Your task to perform on an android device: delete browsing data in the chrome app Image 0: 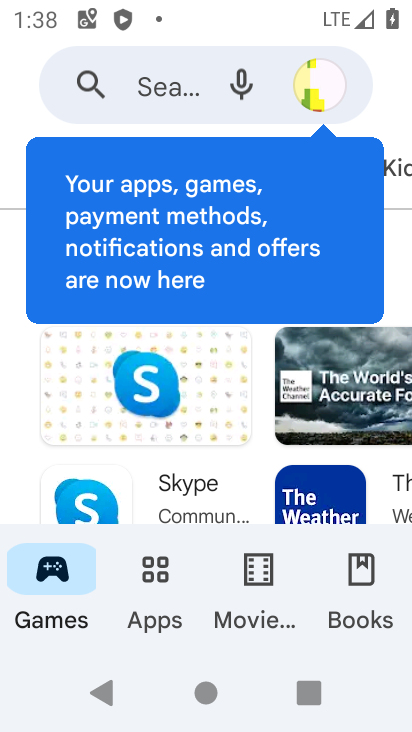
Step 0: press home button
Your task to perform on an android device: delete browsing data in the chrome app Image 1: 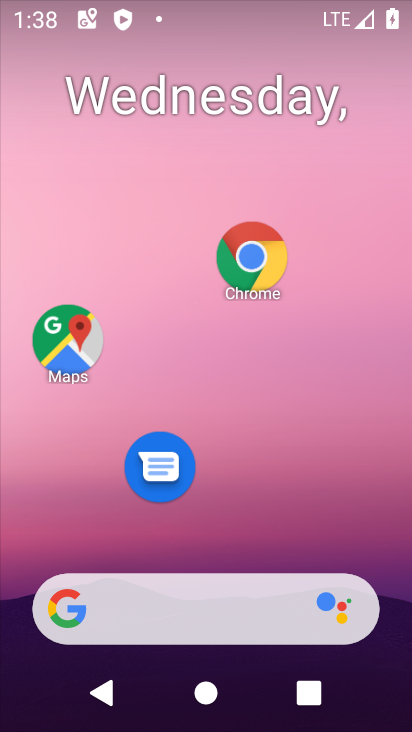
Step 1: click (264, 253)
Your task to perform on an android device: delete browsing data in the chrome app Image 2: 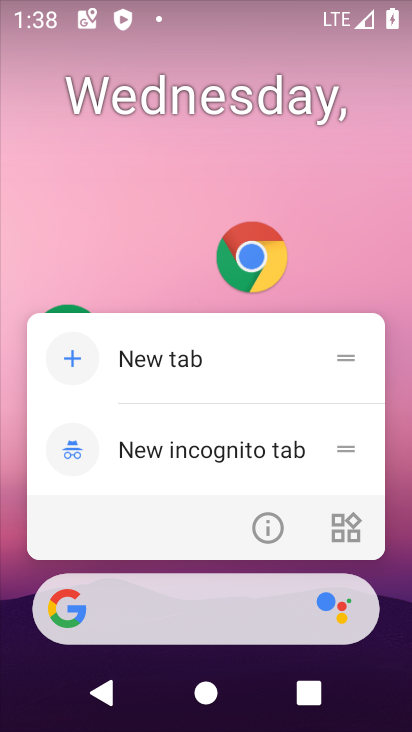
Step 2: click (370, 275)
Your task to perform on an android device: delete browsing data in the chrome app Image 3: 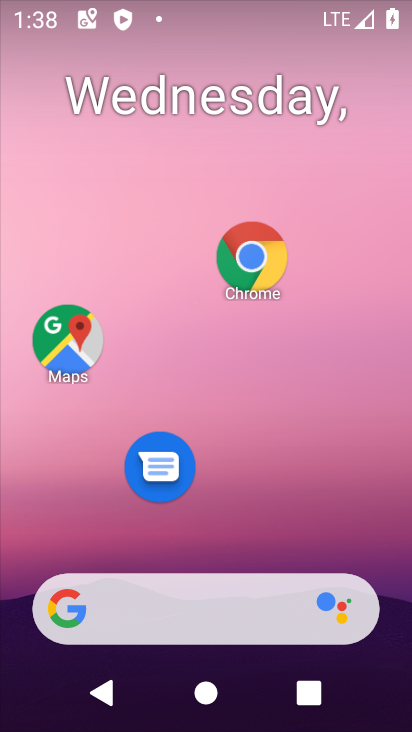
Step 3: drag from (314, 536) to (333, 18)
Your task to perform on an android device: delete browsing data in the chrome app Image 4: 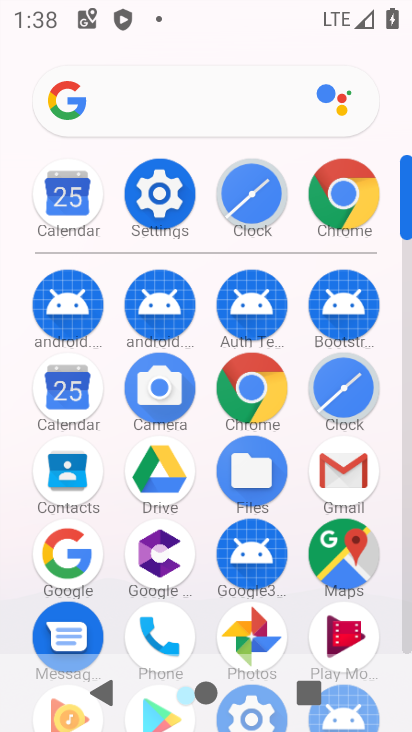
Step 4: click (250, 383)
Your task to perform on an android device: delete browsing data in the chrome app Image 5: 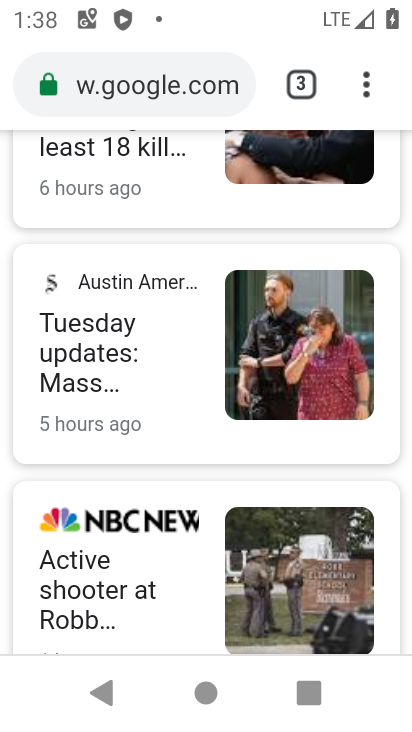
Step 5: drag from (365, 79) to (113, 494)
Your task to perform on an android device: delete browsing data in the chrome app Image 6: 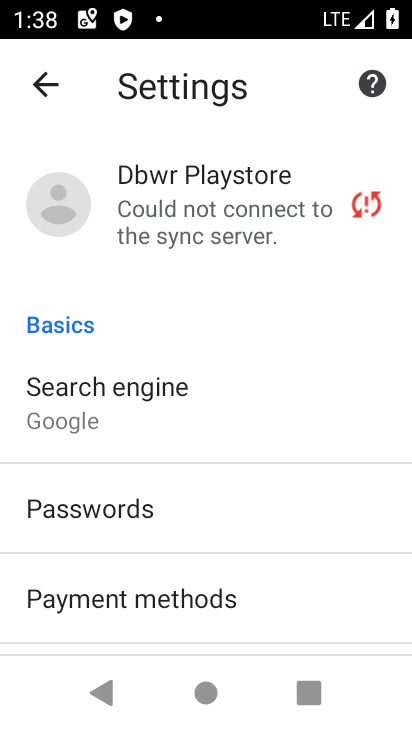
Step 6: drag from (272, 597) to (242, 303)
Your task to perform on an android device: delete browsing data in the chrome app Image 7: 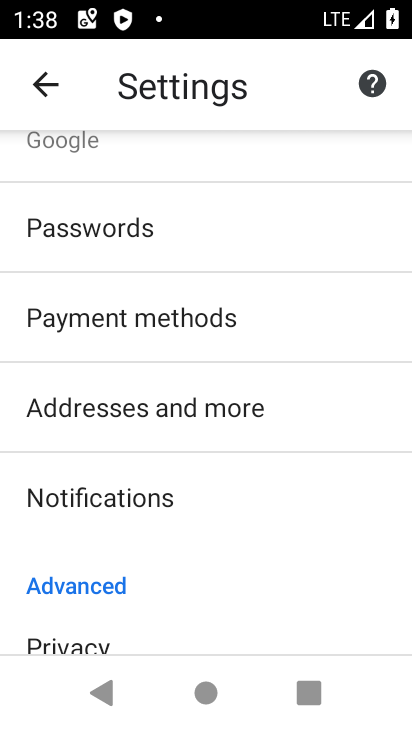
Step 7: drag from (247, 575) to (252, 293)
Your task to perform on an android device: delete browsing data in the chrome app Image 8: 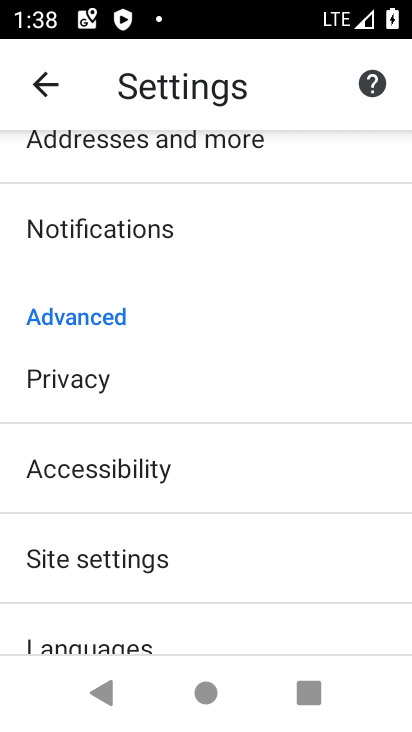
Step 8: click (93, 384)
Your task to perform on an android device: delete browsing data in the chrome app Image 9: 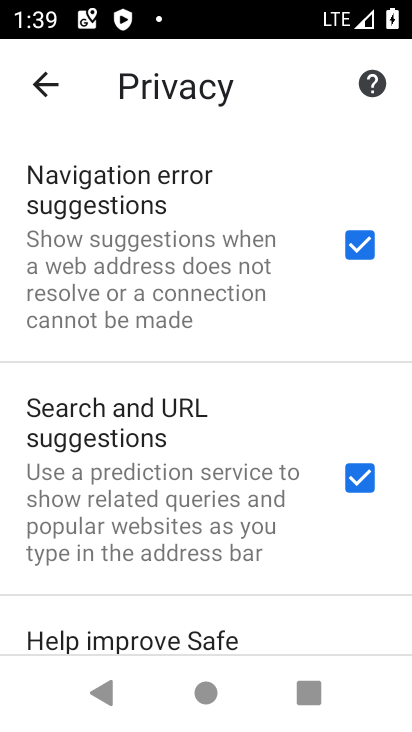
Step 9: drag from (327, 620) to (289, 157)
Your task to perform on an android device: delete browsing data in the chrome app Image 10: 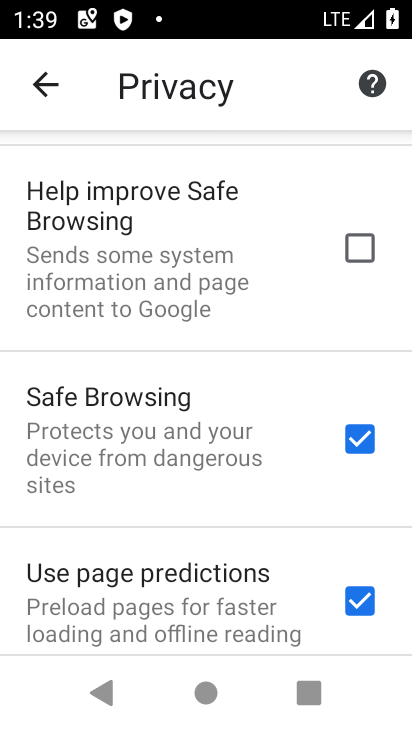
Step 10: drag from (238, 614) to (283, 210)
Your task to perform on an android device: delete browsing data in the chrome app Image 11: 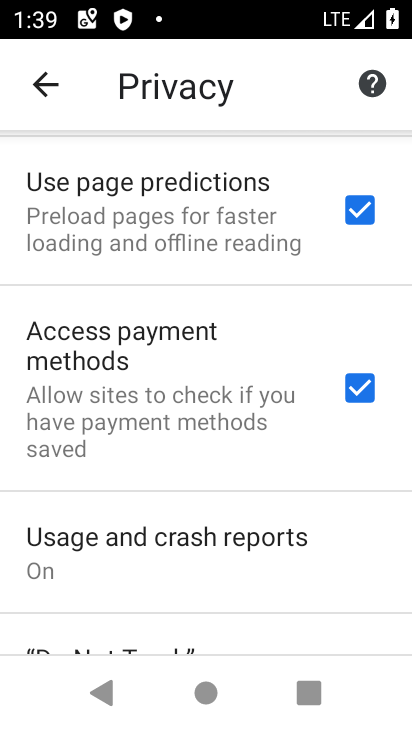
Step 11: drag from (238, 637) to (277, 218)
Your task to perform on an android device: delete browsing data in the chrome app Image 12: 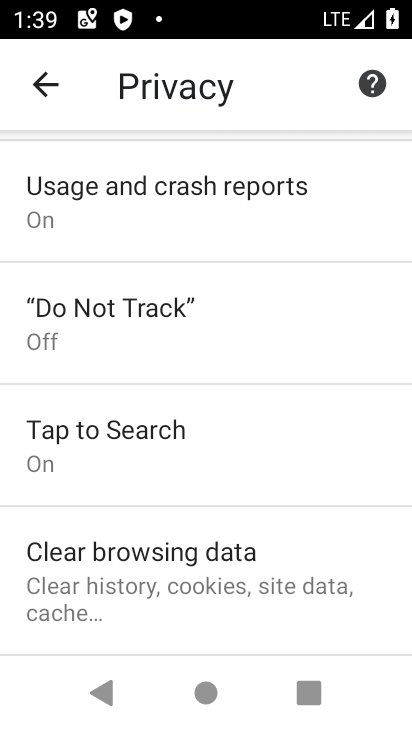
Step 12: click (194, 563)
Your task to perform on an android device: delete browsing data in the chrome app Image 13: 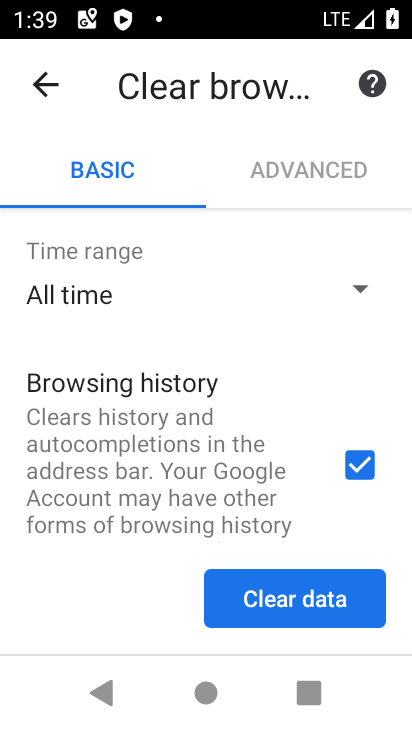
Step 13: click (254, 588)
Your task to perform on an android device: delete browsing data in the chrome app Image 14: 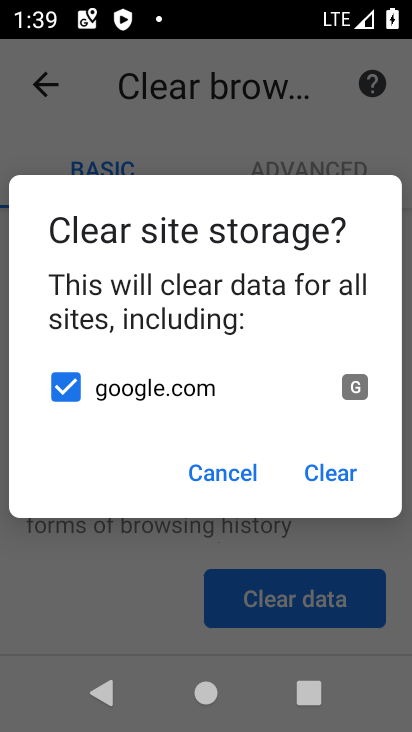
Step 14: click (345, 473)
Your task to perform on an android device: delete browsing data in the chrome app Image 15: 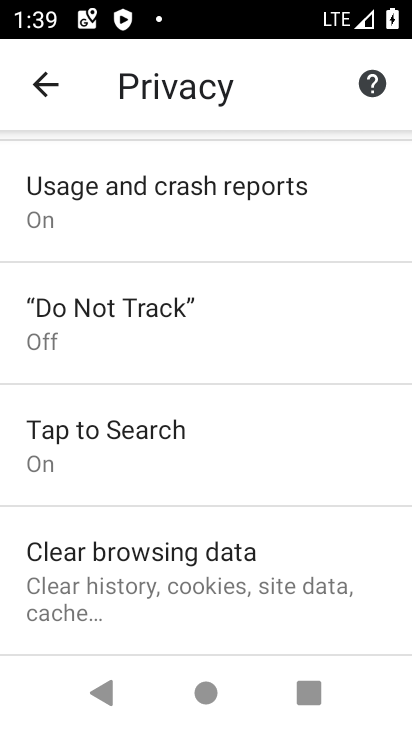
Step 15: click (124, 605)
Your task to perform on an android device: delete browsing data in the chrome app Image 16: 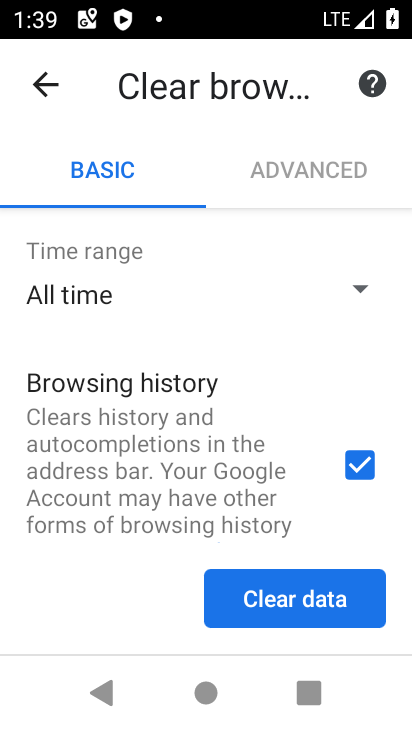
Step 16: click (306, 604)
Your task to perform on an android device: delete browsing data in the chrome app Image 17: 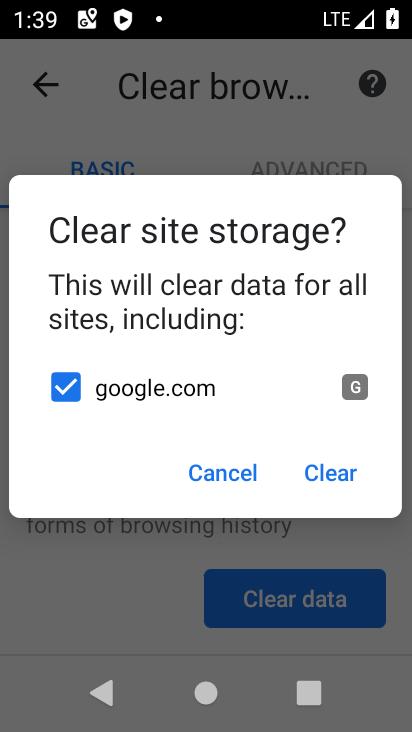
Step 17: click (317, 471)
Your task to perform on an android device: delete browsing data in the chrome app Image 18: 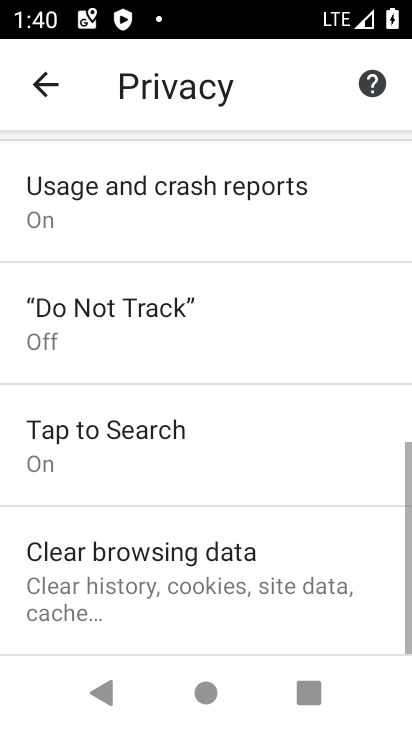
Step 18: task complete